Your task to perform on an android device: See recent photos Image 0: 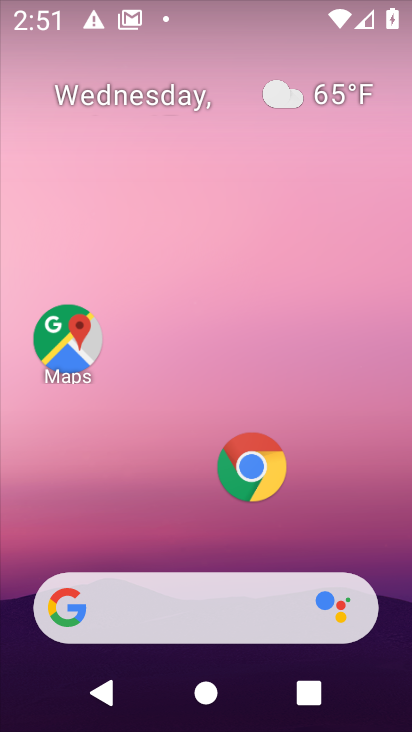
Step 0: drag from (169, 509) to (226, 177)
Your task to perform on an android device: See recent photos Image 1: 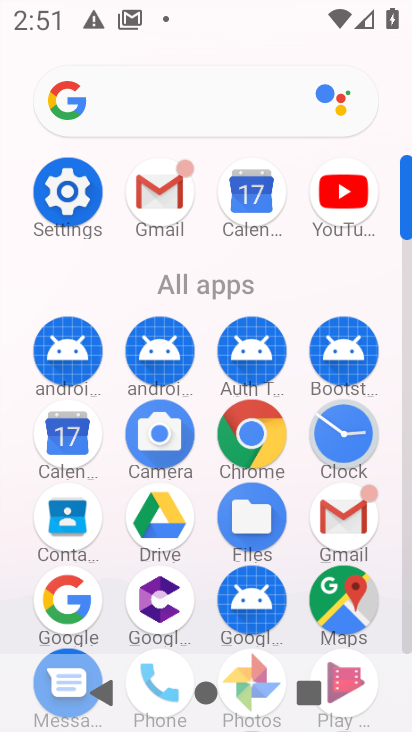
Step 1: task complete